Your task to perform on an android device: Open Google Chrome and click the shortcut for Amazon.com Image 0: 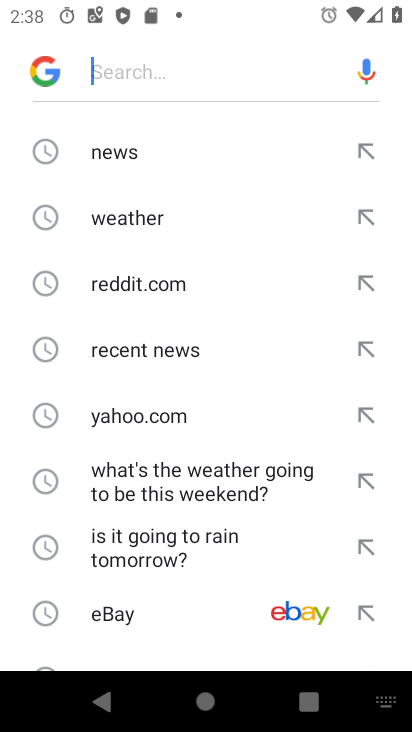
Step 0: press home button
Your task to perform on an android device: Open Google Chrome and click the shortcut for Amazon.com Image 1: 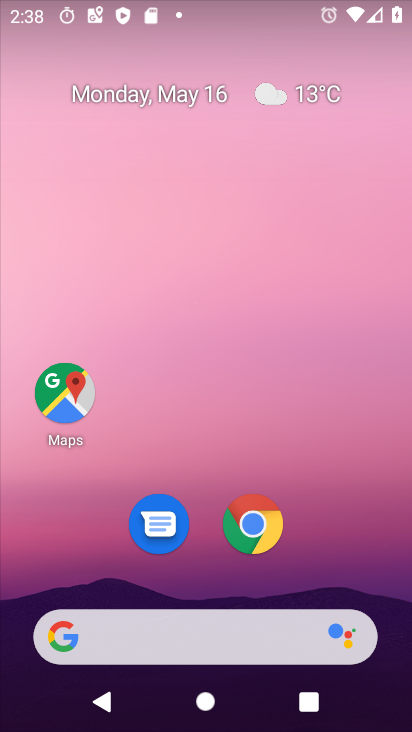
Step 1: click (258, 525)
Your task to perform on an android device: Open Google Chrome and click the shortcut for Amazon.com Image 2: 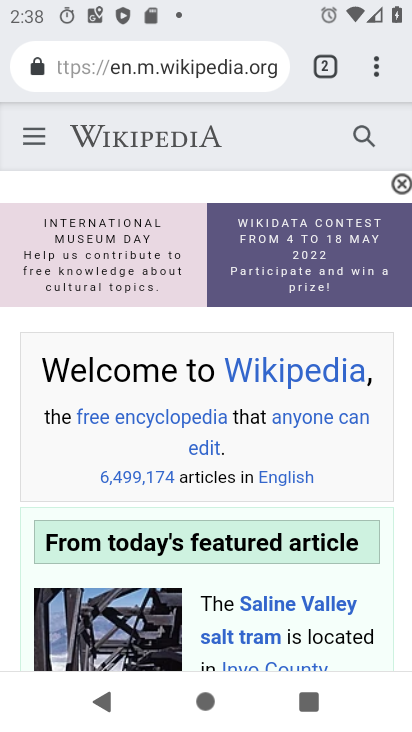
Step 2: click (376, 67)
Your task to perform on an android device: Open Google Chrome and click the shortcut for Amazon.com Image 3: 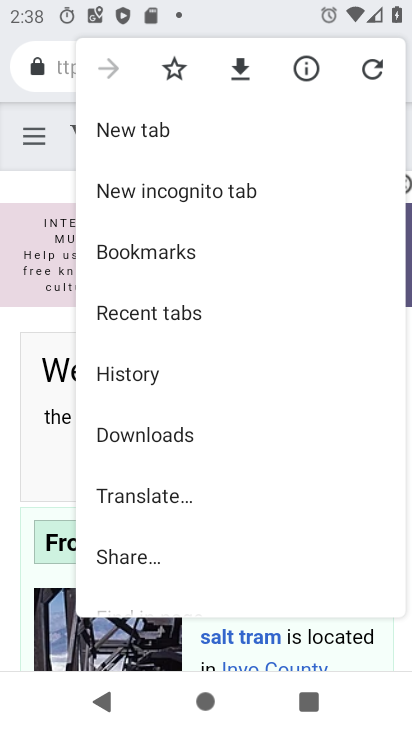
Step 3: click (290, 126)
Your task to perform on an android device: Open Google Chrome and click the shortcut for Amazon.com Image 4: 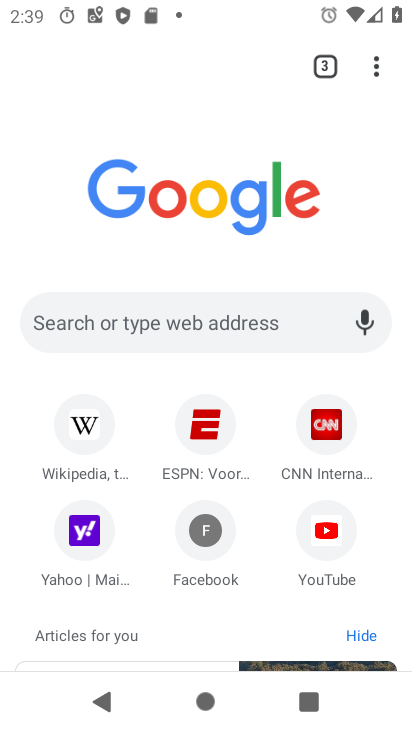
Step 4: drag from (273, 435) to (280, 147)
Your task to perform on an android device: Open Google Chrome and click the shortcut for Amazon.com Image 5: 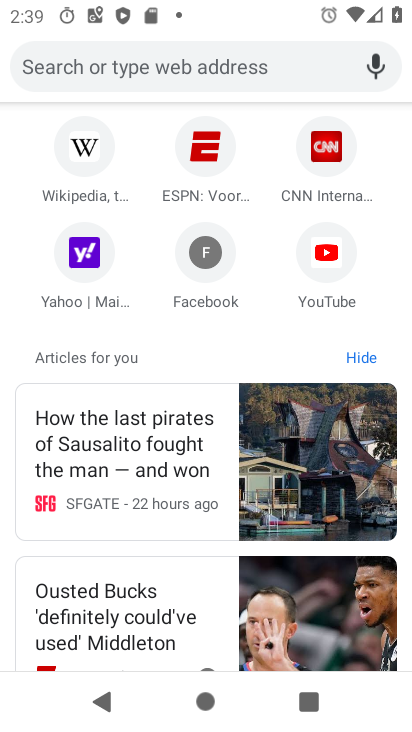
Step 5: click (360, 354)
Your task to perform on an android device: Open Google Chrome and click the shortcut for Amazon.com Image 6: 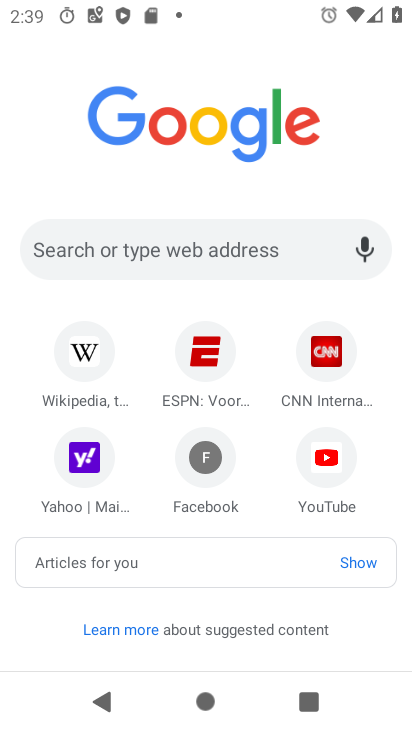
Step 6: task complete